Your task to perform on an android device: Go to internet settings Image 0: 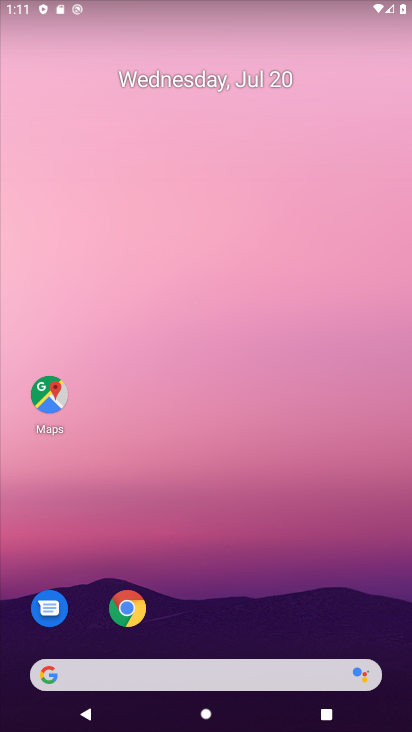
Step 0: drag from (344, 29) to (106, 19)
Your task to perform on an android device: Go to internet settings Image 1: 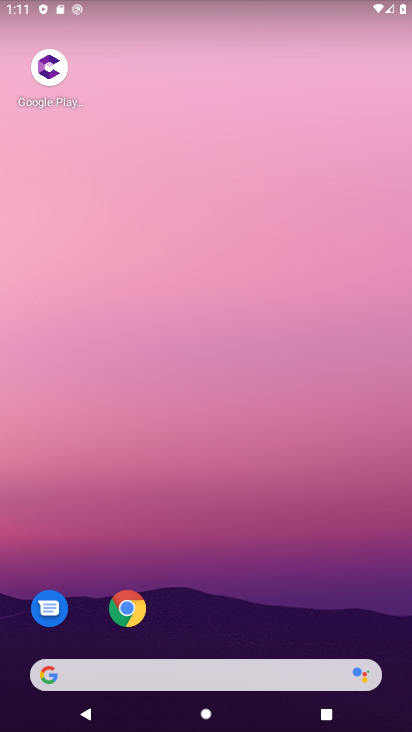
Step 1: drag from (262, 653) to (260, 47)
Your task to perform on an android device: Go to internet settings Image 2: 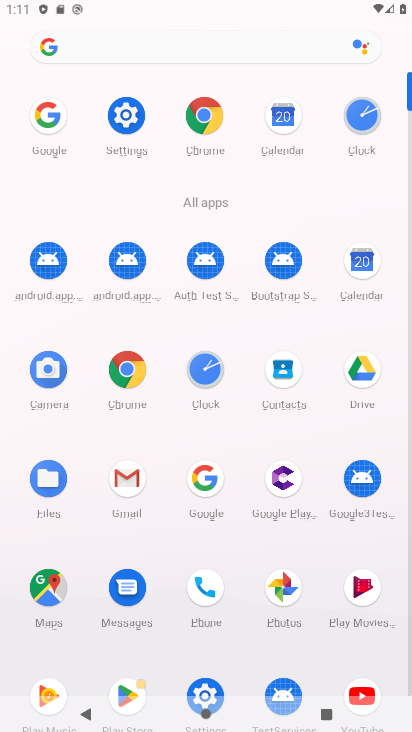
Step 2: click (124, 117)
Your task to perform on an android device: Go to internet settings Image 3: 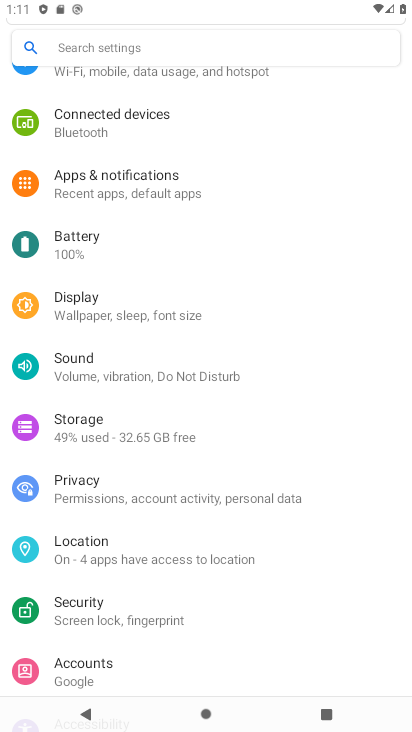
Step 3: drag from (122, 142) to (82, 631)
Your task to perform on an android device: Go to internet settings Image 4: 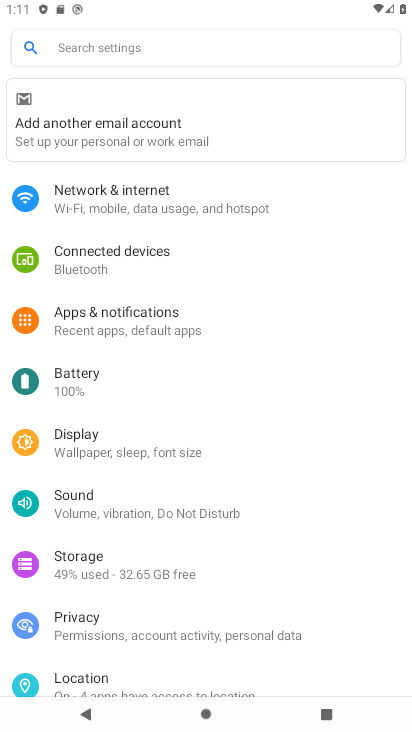
Step 4: click (115, 212)
Your task to perform on an android device: Go to internet settings Image 5: 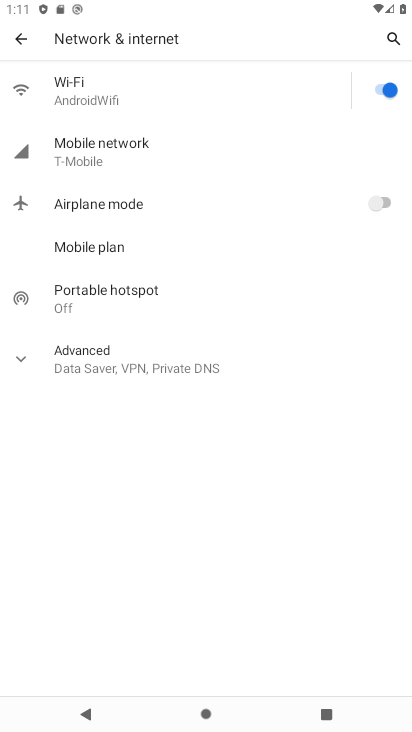
Step 5: task complete